Your task to perform on an android device: Open Yahoo.com Image 0: 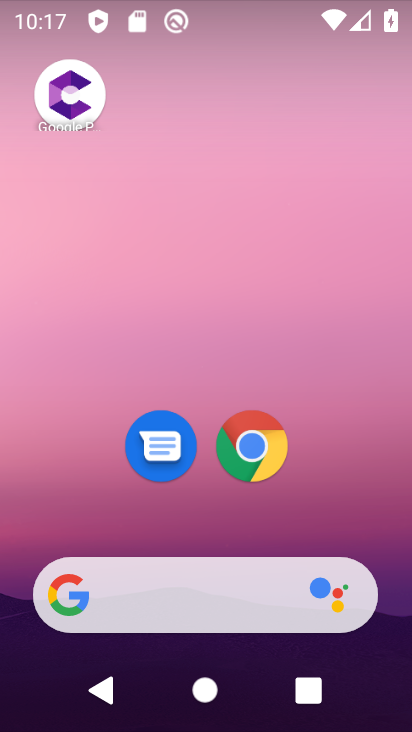
Step 0: click (275, 460)
Your task to perform on an android device: Open Yahoo.com Image 1: 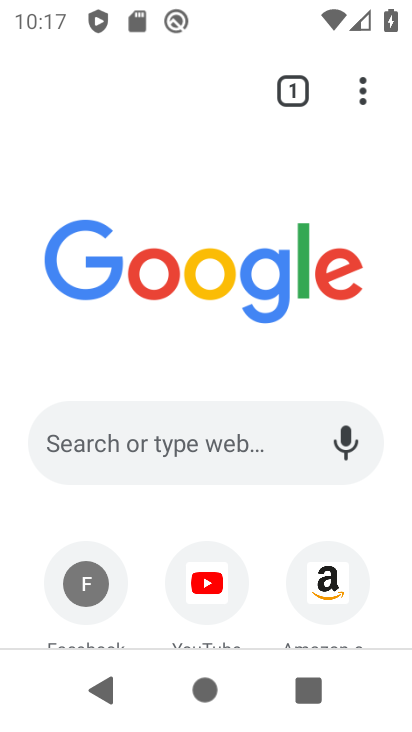
Step 1: drag from (216, 489) to (259, 155)
Your task to perform on an android device: Open Yahoo.com Image 2: 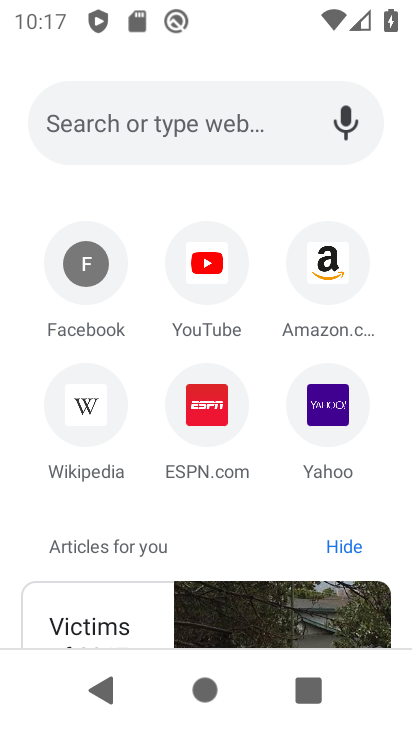
Step 2: click (330, 417)
Your task to perform on an android device: Open Yahoo.com Image 3: 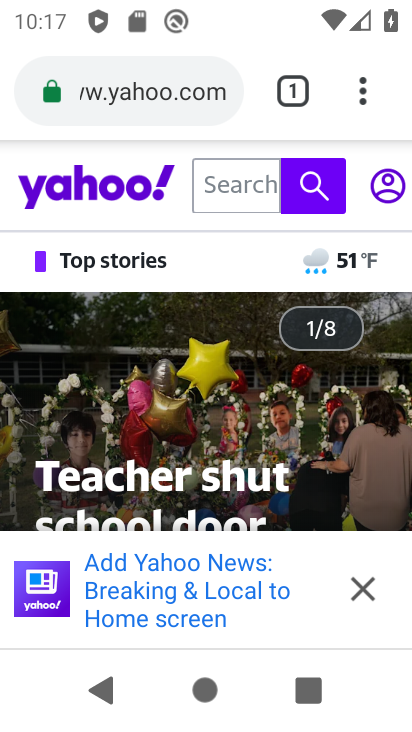
Step 3: task complete